Your task to perform on an android device: Search for flights from San Diego to Seattle Image 0: 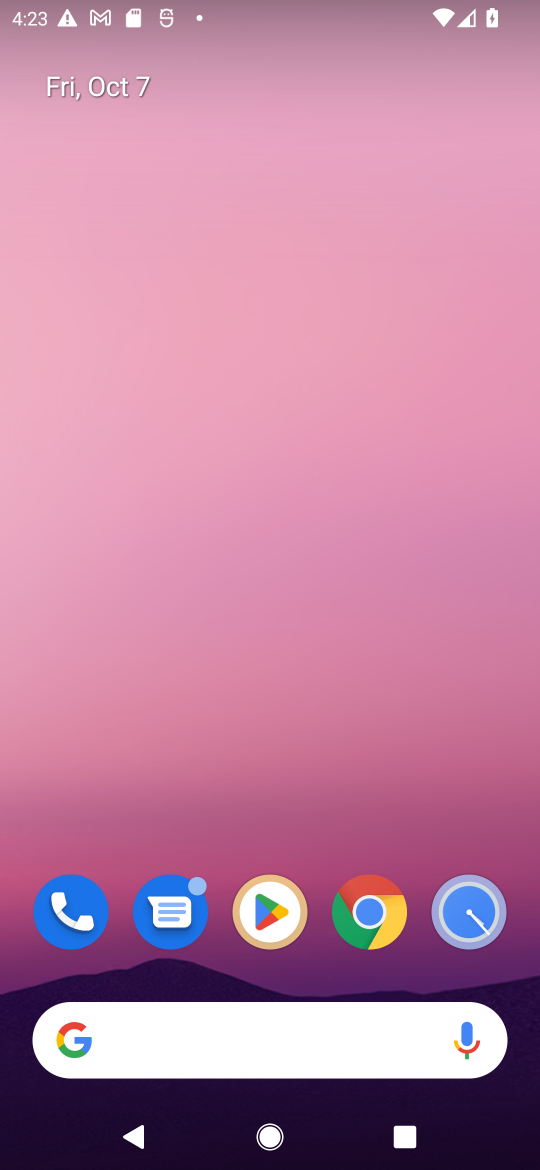
Step 0: drag from (191, 972) to (309, 486)
Your task to perform on an android device: Search for flights from San Diego to Seattle Image 1: 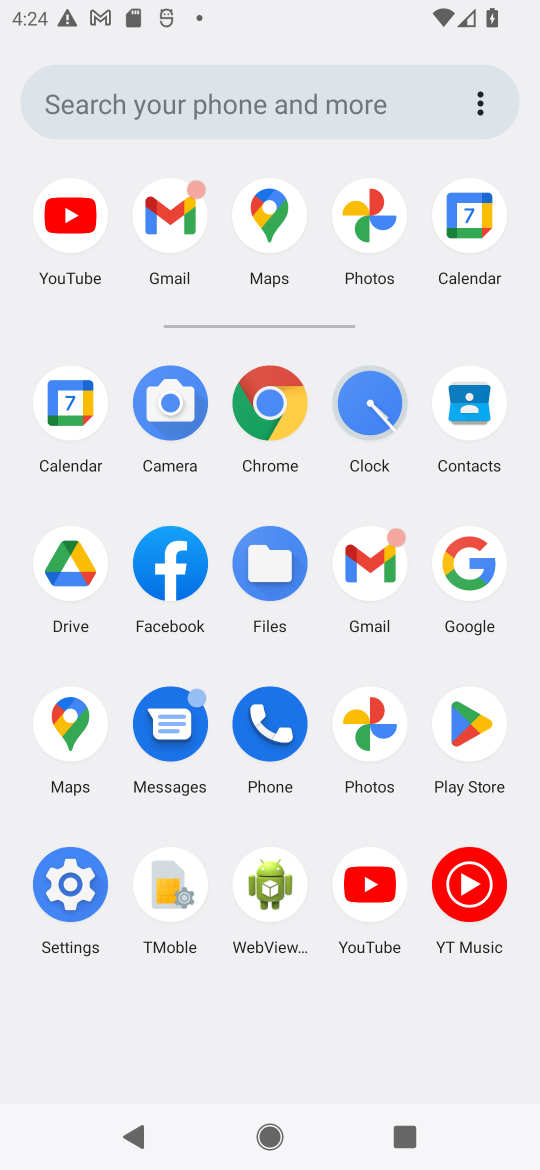
Step 1: click (455, 555)
Your task to perform on an android device: Search for flights from San Diego to Seattle Image 2: 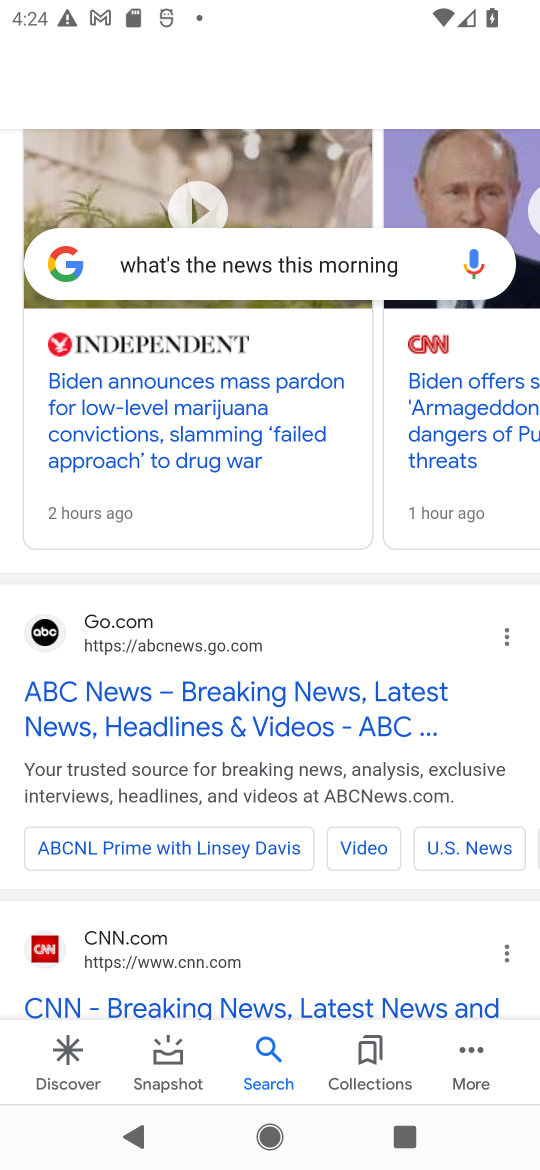
Step 2: click (403, 257)
Your task to perform on an android device: Search for flights from San Diego to Seattle Image 3: 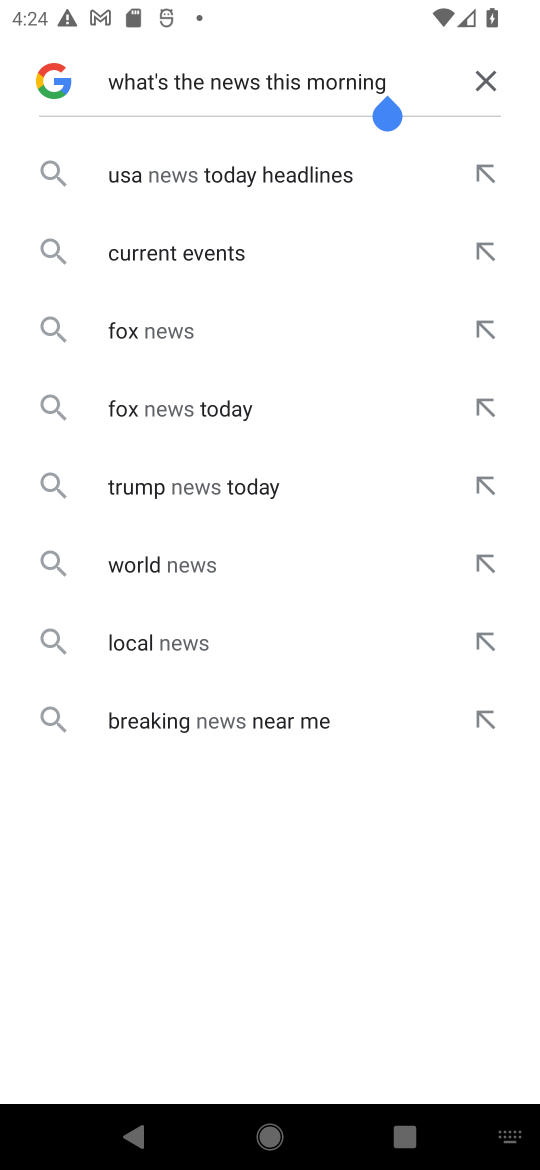
Step 3: click (498, 72)
Your task to perform on an android device: Search for flights from San Diego to Seattle Image 4: 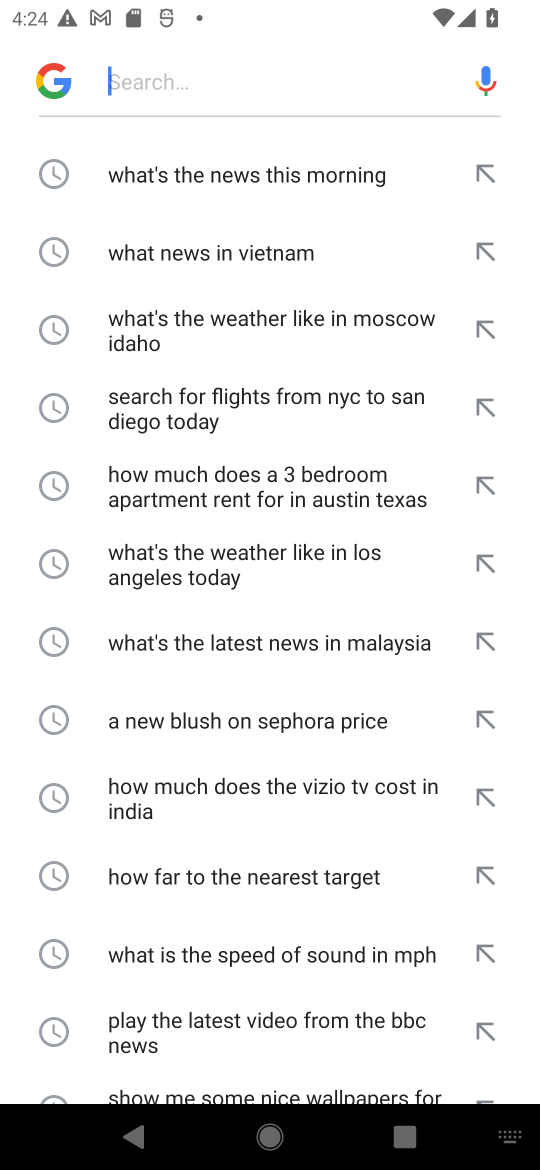
Step 4: click (295, 81)
Your task to perform on an android device: Search for flights from San Diego to Seattle Image 5: 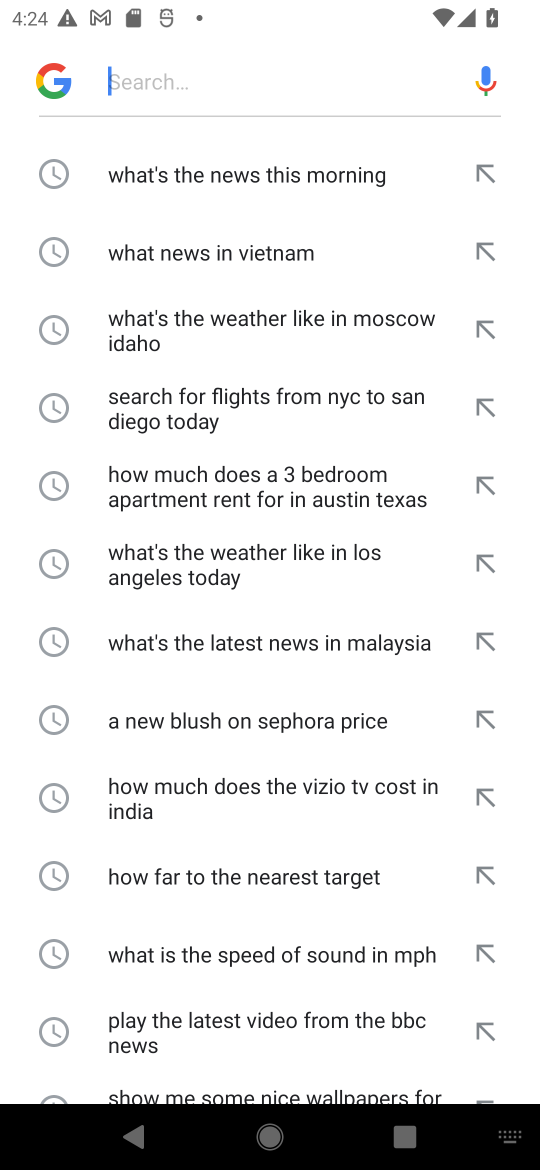
Step 5: type "Search for flights from San Diego to Seattle "
Your task to perform on an android device: Search for flights from San Diego to Seattle Image 6: 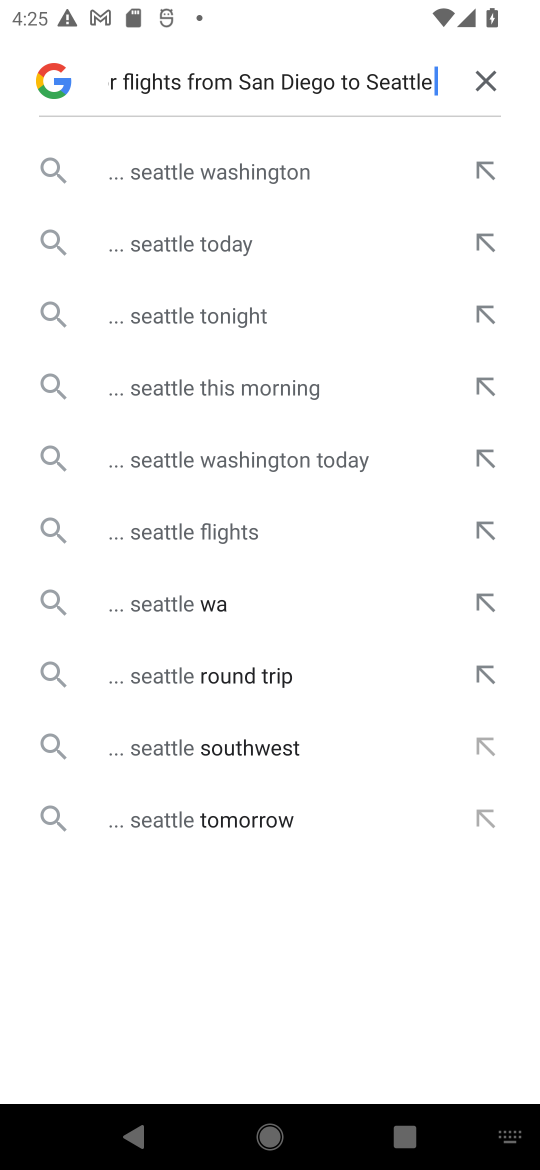
Step 6: click (231, 239)
Your task to perform on an android device: Search for flights from San Diego to Seattle Image 7: 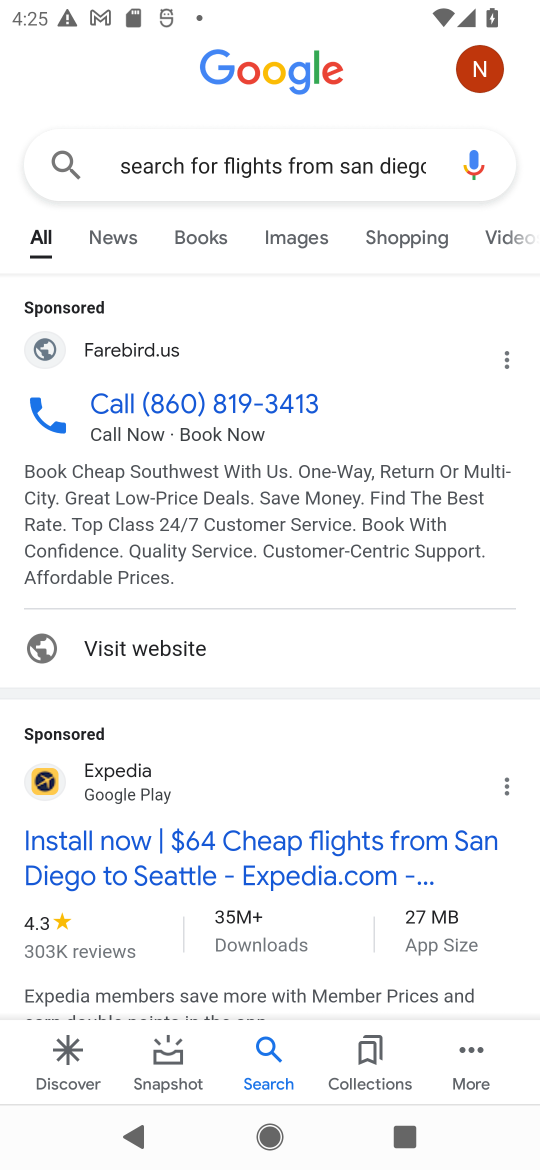
Step 7: drag from (216, 860) to (286, 455)
Your task to perform on an android device: Search for flights from San Diego to Seattle Image 8: 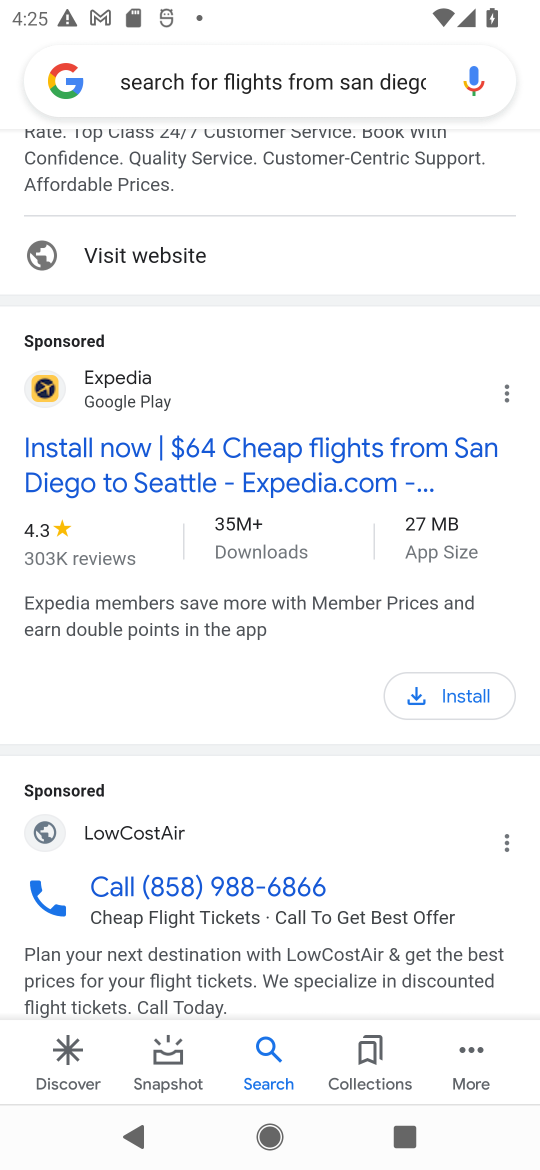
Step 8: click (245, 443)
Your task to perform on an android device: Search for flights from San Diego to Seattle Image 9: 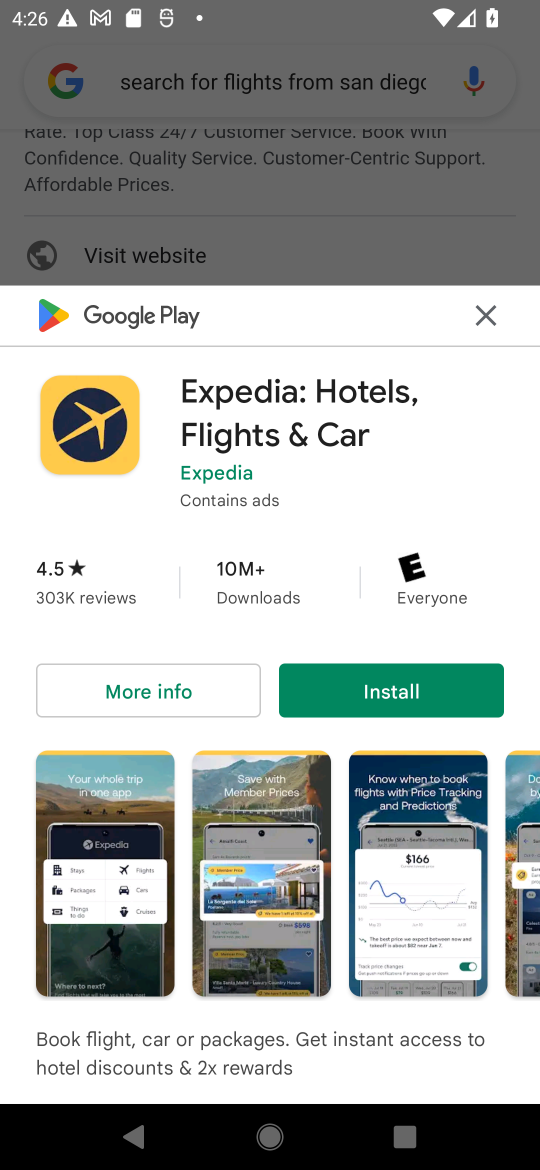
Step 9: click (494, 307)
Your task to perform on an android device: Search for flights from San Diego to Seattle Image 10: 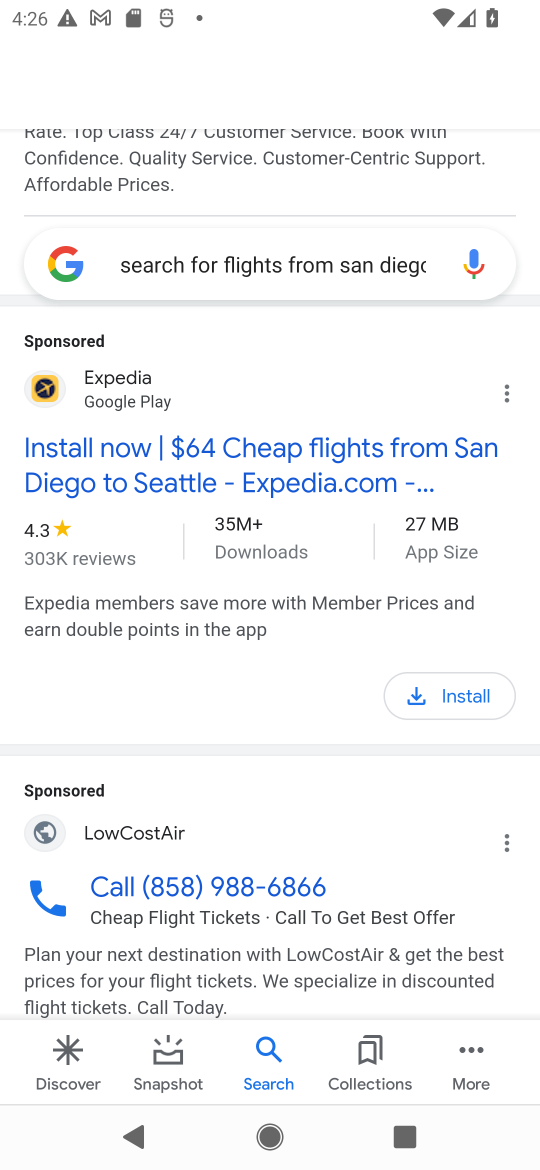
Step 10: drag from (236, 951) to (359, 149)
Your task to perform on an android device: Search for flights from San Diego to Seattle Image 11: 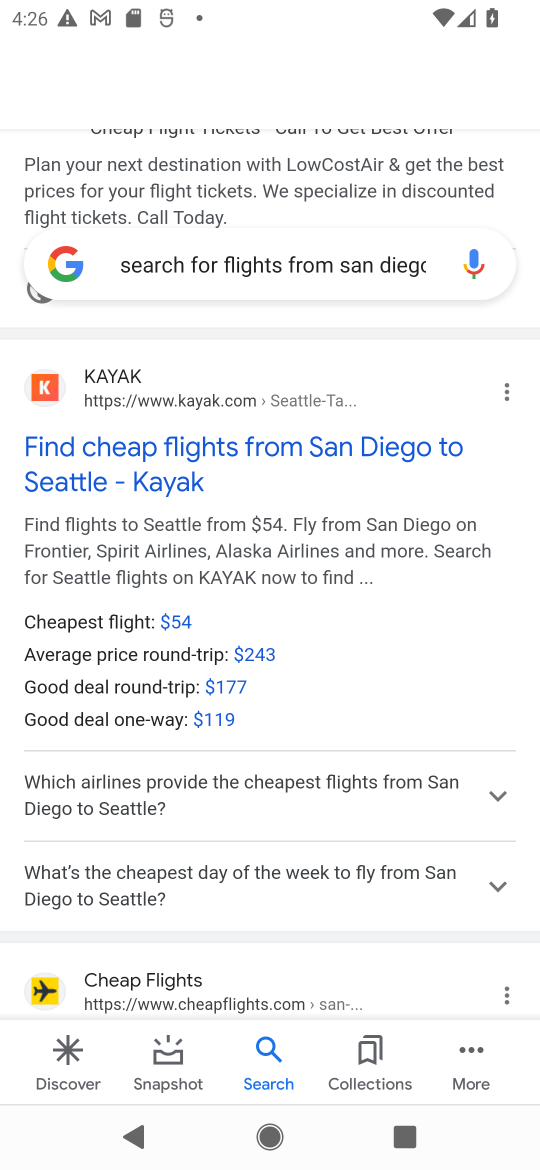
Step 11: click (81, 436)
Your task to perform on an android device: Search for flights from San Diego to Seattle Image 12: 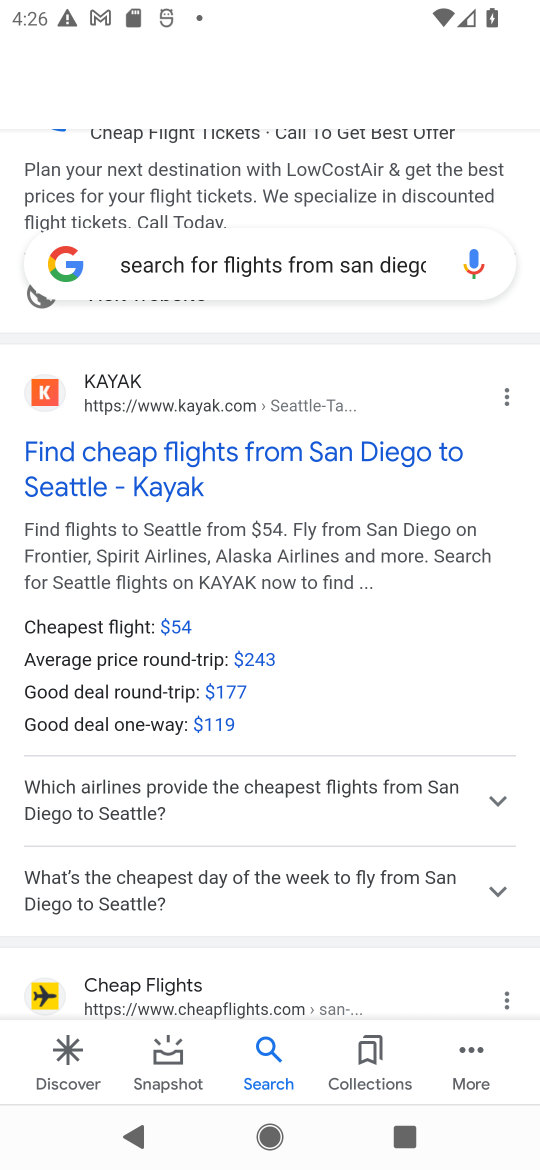
Step 12: click (125, 440)
Your task to perform on an android device: Search for flights from San Diego to Seattle Image 13: 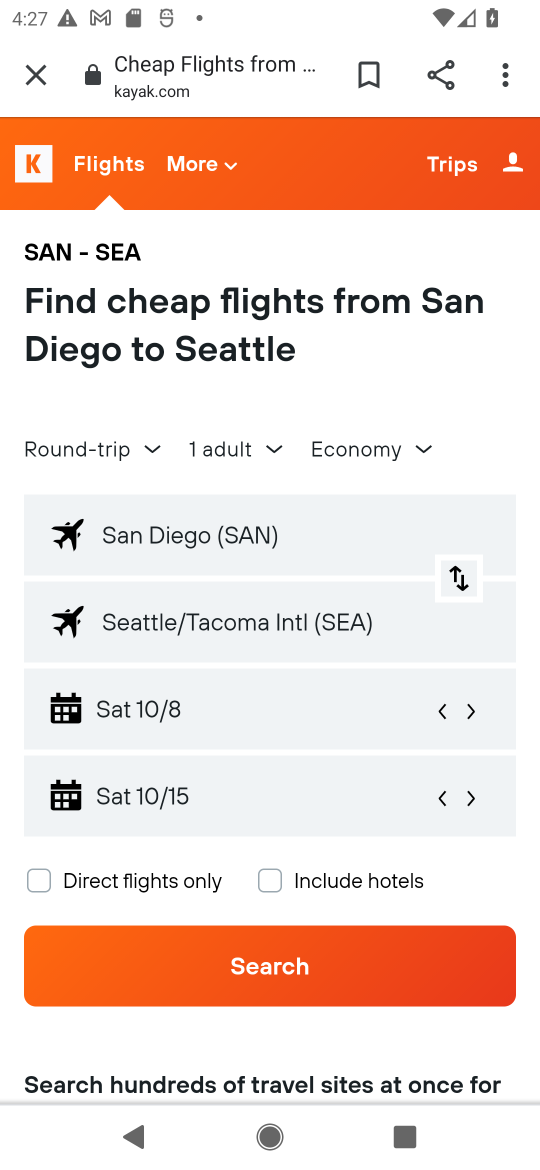
Step 13: task complete